Your task to perform on an android device: Go to CNN.com Image 0: 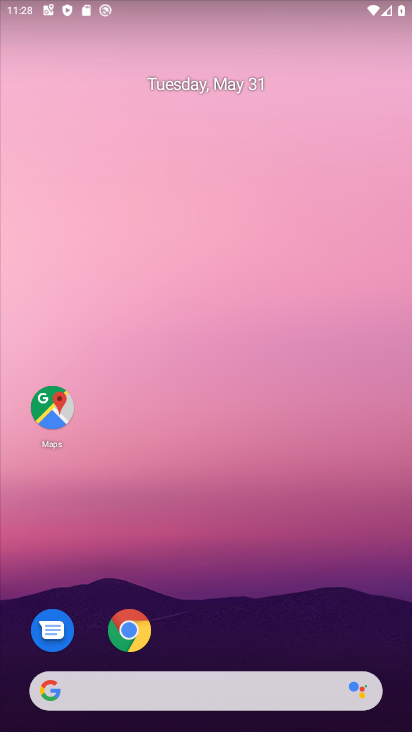
Step 0: click (210, 699)
Your task to perform on an android device: Go to CNN.com Image 1: 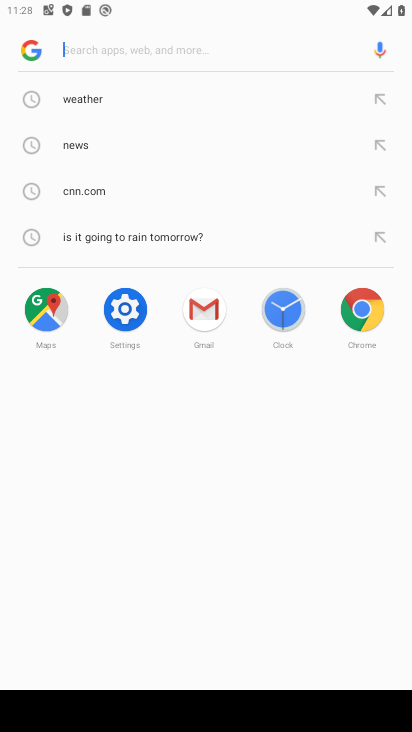
Step 1: type "CNN.com"
Your task to perform on an android device: Go to CNN.com Image 2: 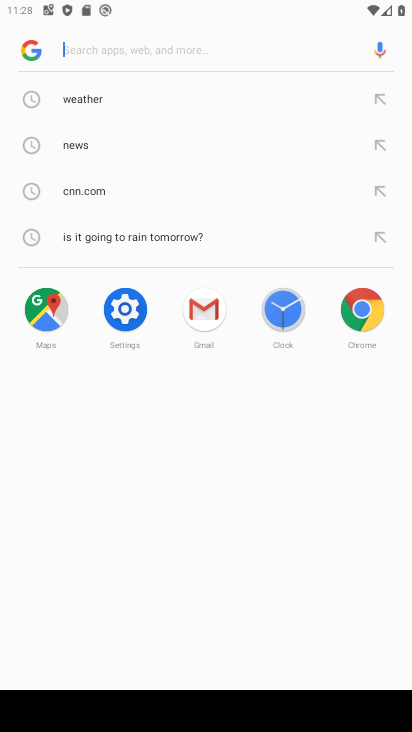
Step 2: click (145, 53)
Your task to perform on an android device: Go to CNN.com Image 3: 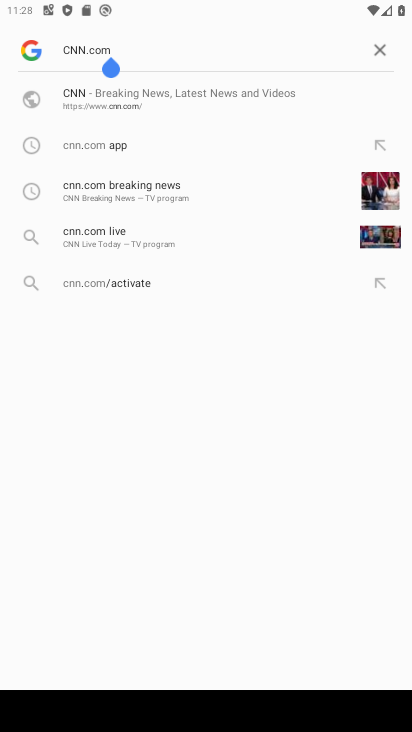
Step 3: click (102, 88)
Your task to perform on an android device: Go to CNN.com Image 4: 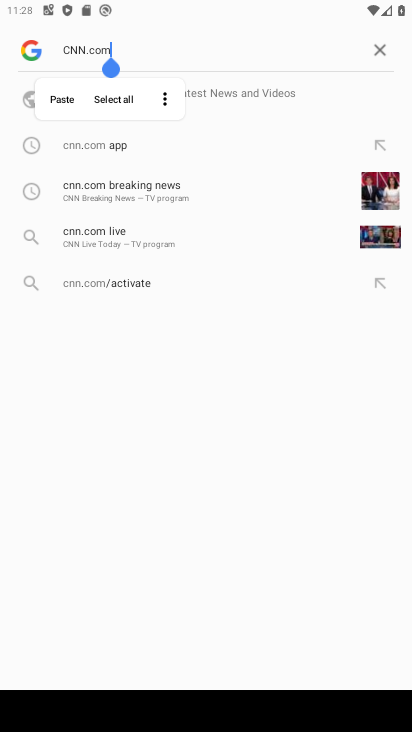
Step 4: click (243, 94)
Your task to perform on an android device: Go to CNN.com Image 5: 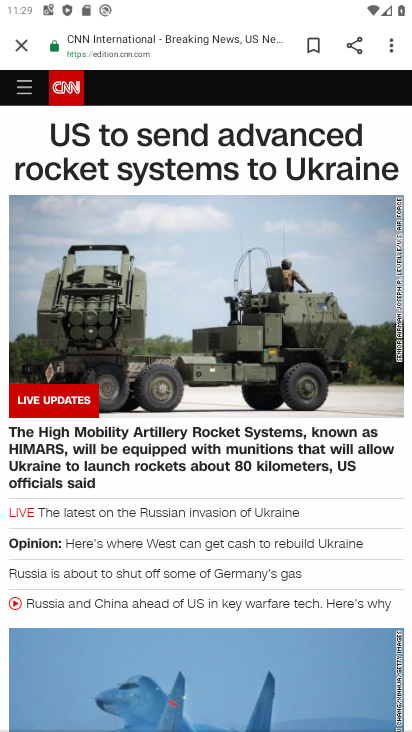
Step 5: task complete